Your task to perform on an android device: change the clock display to show seconds Image 0: 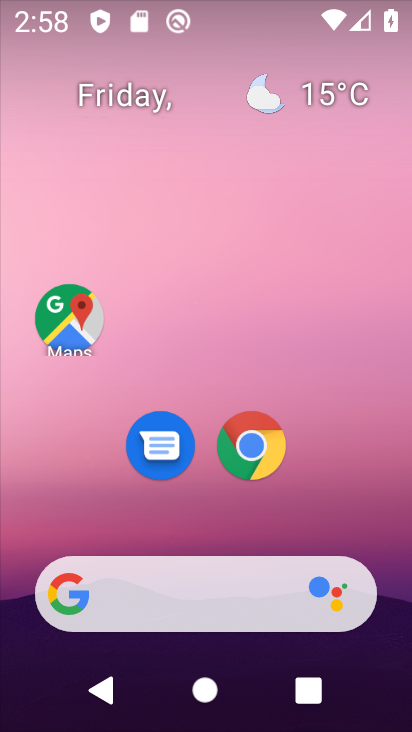
Step 0: drag from (392, 634) to (347, 101)
Your task to perform on an android device: change the clock display to show seconds Image 1: 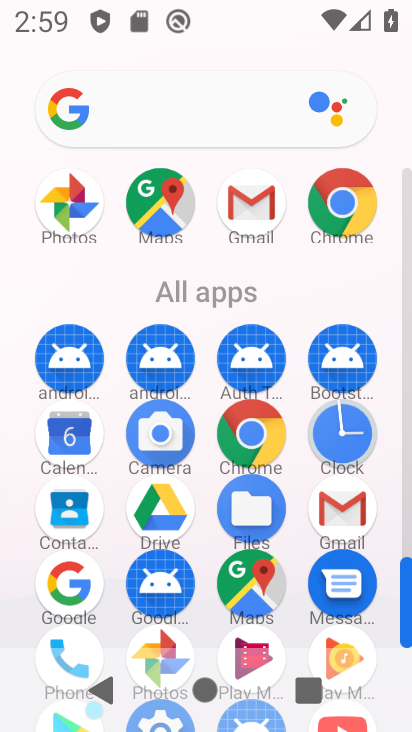
Step 1: click (334, 431)
Your task to perform on an android device: change the clock display to show seconds Image 2: 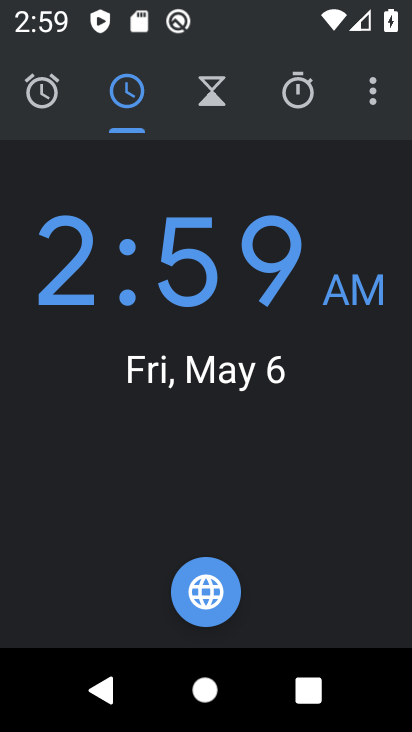
Step 2: click (372, 98)
Your task to perform on an android device: change the clock display to show seconds Image 3: 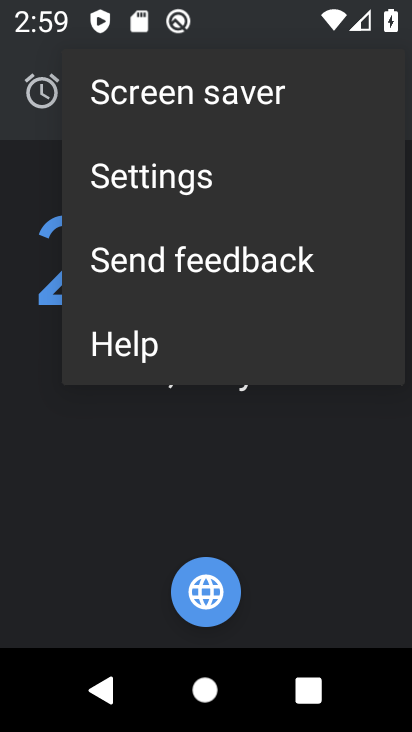
Step 3: click (145, 166)
Your task to perform on an android device: change the clock display to show seconds Image 4: 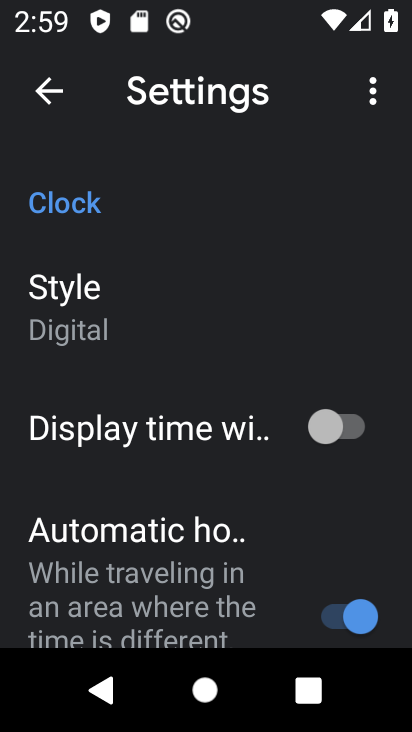
Step 4: click (348, 428)
Your task to perform on an android device: change the clock display to show seconds Image 5: 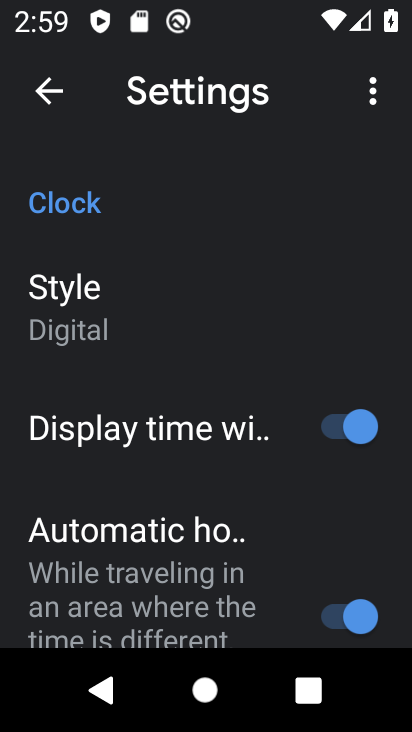
Step 5: task complete